Your task to perform on an android device: Open privacy settings Image 0: 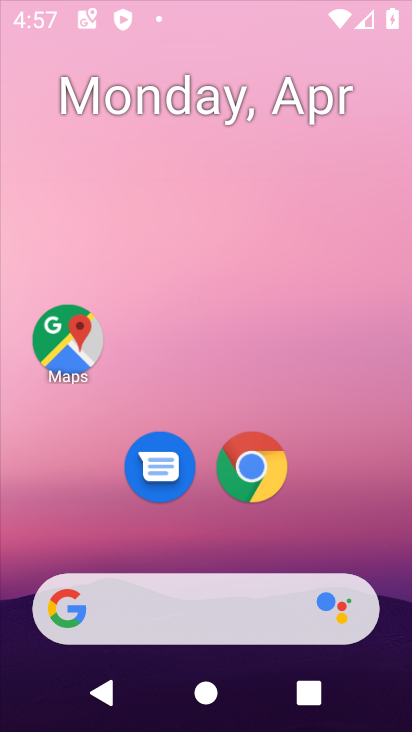
Step 0: drag from (369, 516) to (372, 0)
Your task to perform on an android device: Open privacy settings Image 1: 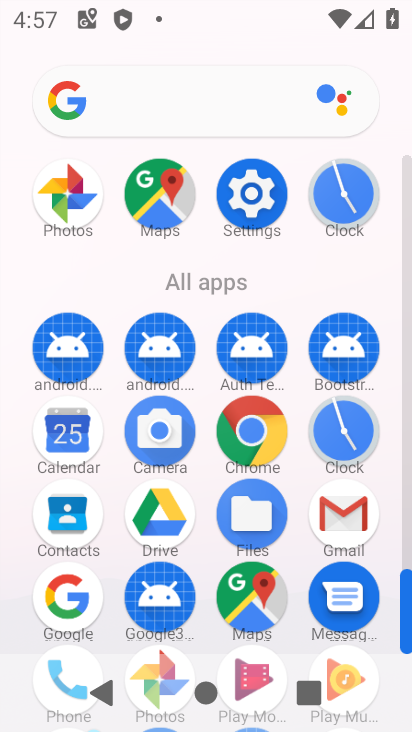
Step 1: drag from (281, 601) to (285, 47)
Your task to perform on an android device: Open privacy settings Image 2: 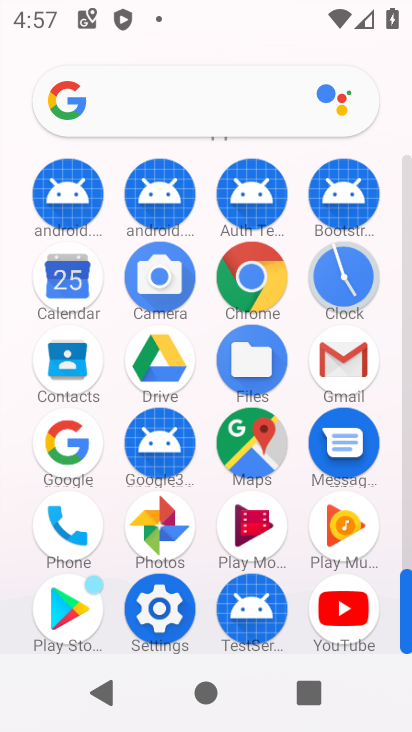
Step 2: click (157, 608)
Your task to perform on an android device: Open privacy settings Image 3: 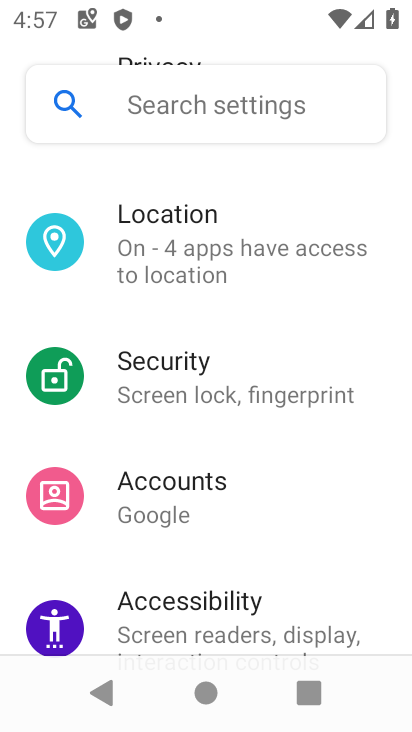
Step 3: drag from (184, 192) to (239, 621)
Your task to perform on an android device: Open privacy settings Image 4: 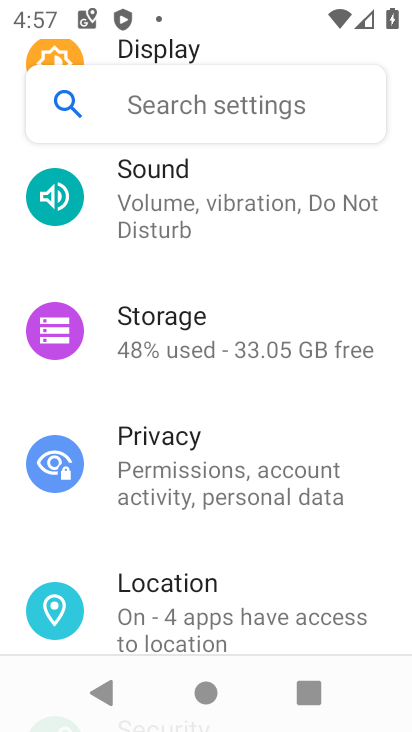
Step 4: click (190, 465)
Your task to perform on an android device: Open privacy settings Image 5: 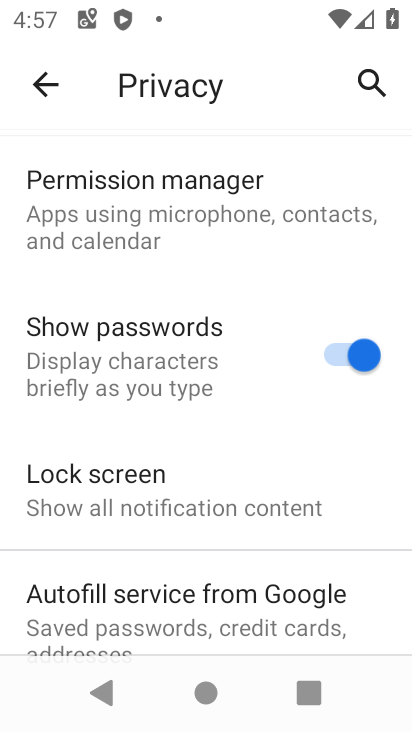
Step 5: task complete